Your task to perform on an android device: What's the weather today? Image 0: 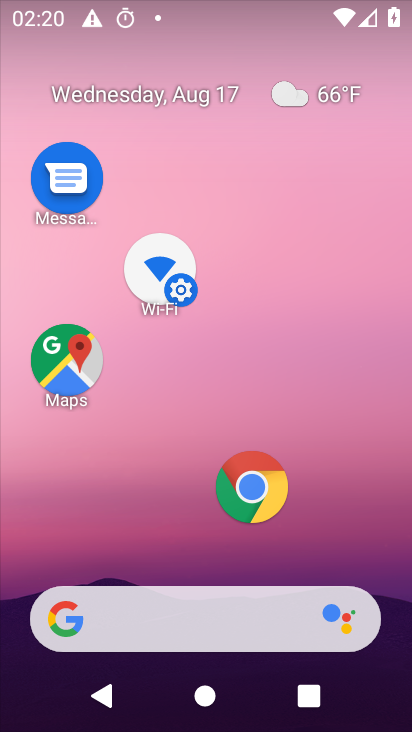
Step 0: press home button
Your task to perform on an android device: What's the weather today? Image 1: 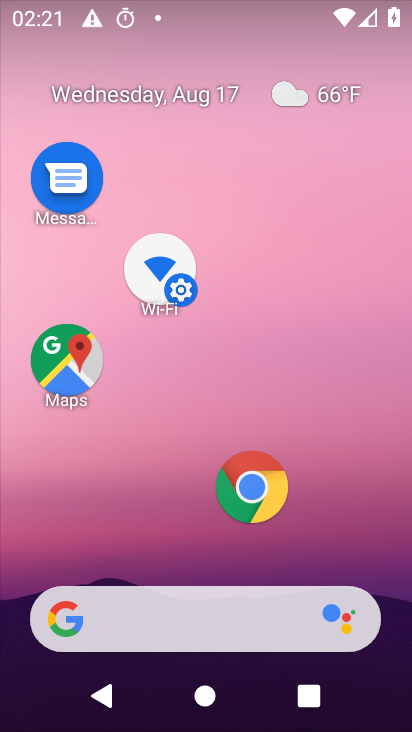
Step 1: click (63, 626)
Your task to perform on an android device: What's the weather today? Image 2: 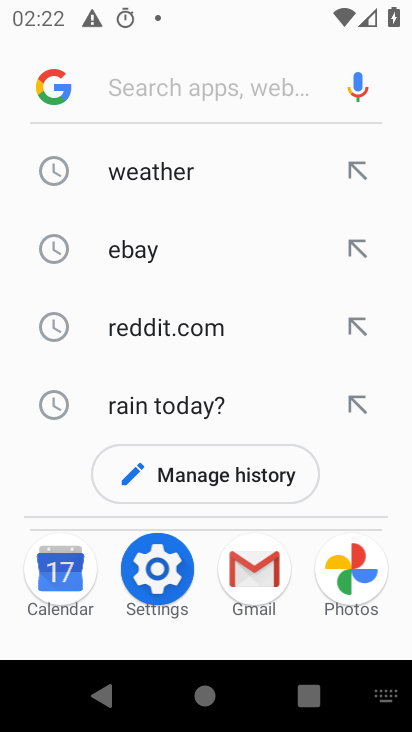
Step 2: type "weather today?"
Your task to perform on an android device: What's the weather today? Image 3: 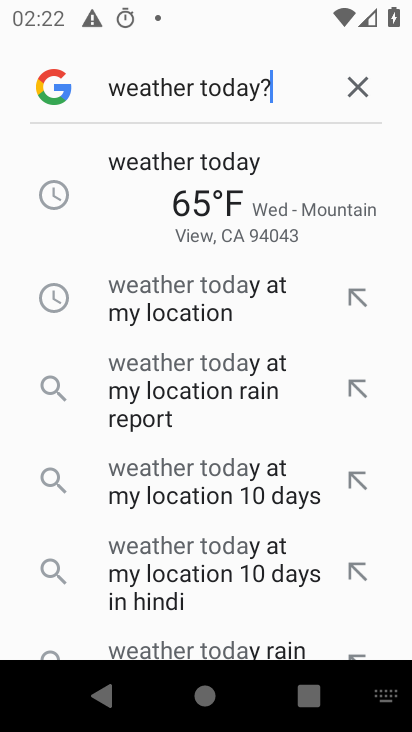
Step 3: press enter
Your task to perform on an android device: What's the weather today? Image 4: 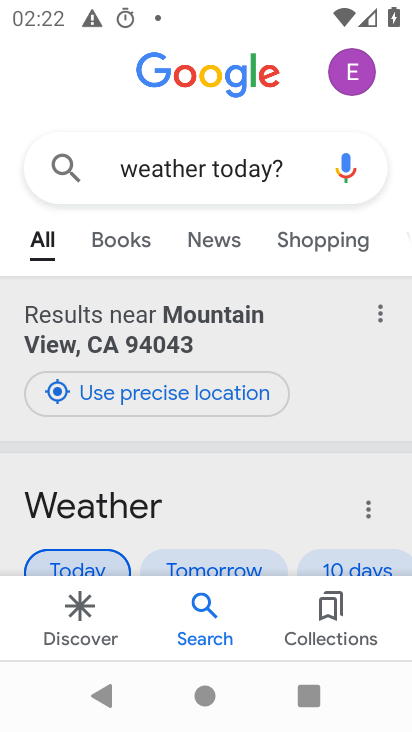
Step 4: task complete